Your task to perform on an android device: remove spam from my inbox in the gmail app Image 0: 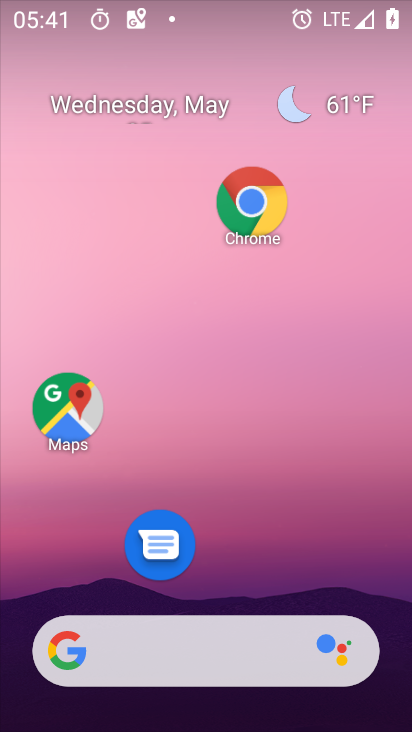
Step 0: click (253, 358)
Your task to perform on an android device: remove spam from my inbox in the gmail app Image 1: 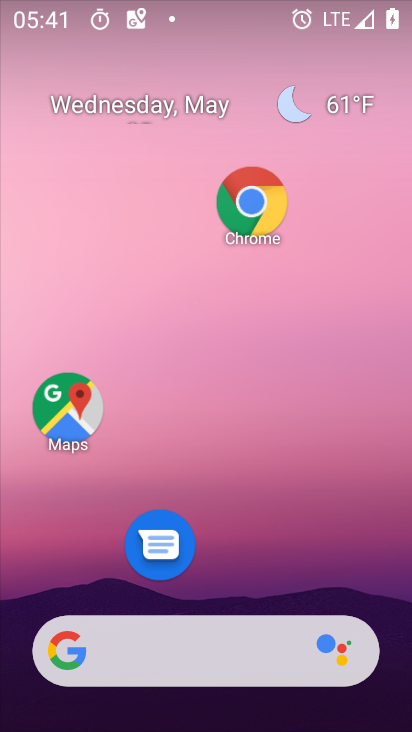
Step 1: drag from (193, 630) to (193, 270)
Your task to perform on an android device: remove spam from my inbox in the gmail app Image 2: 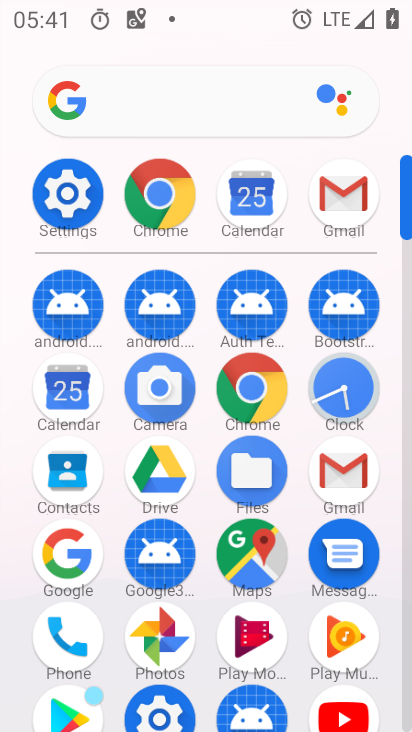
Step 2: click (336, 199)
Your task to perform on an android device: remove spam from my inbox in the gmail app Image 3: 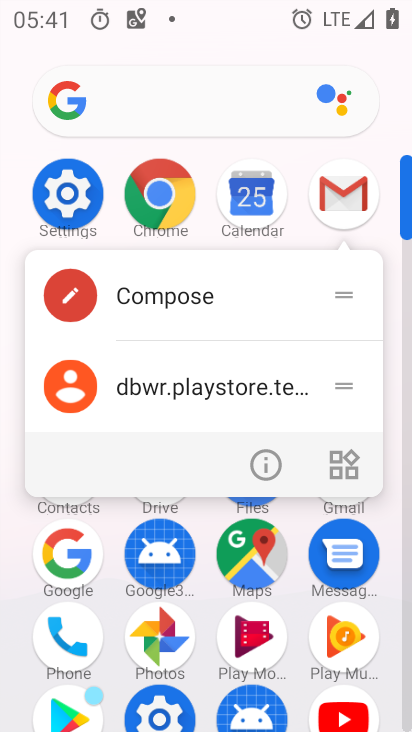
Step 3: click (342, 197)
Your task to perform on an android device: remove spam from my inbox in the gmail app Image 4: 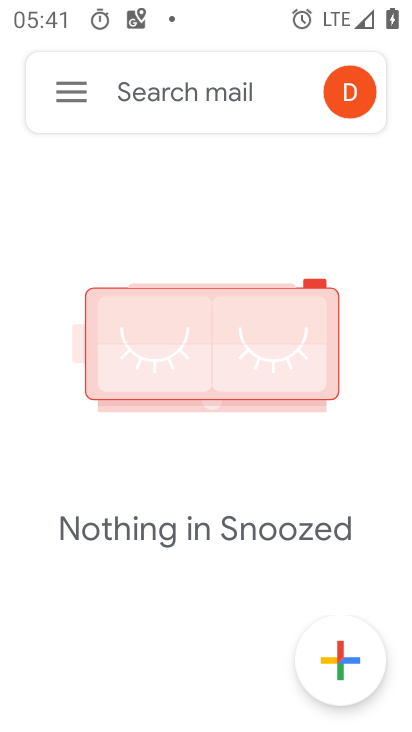
Step 4: click (80, 90)
Your task to perform on an android device: remove spam from my inbox in the gmail app Image 5: 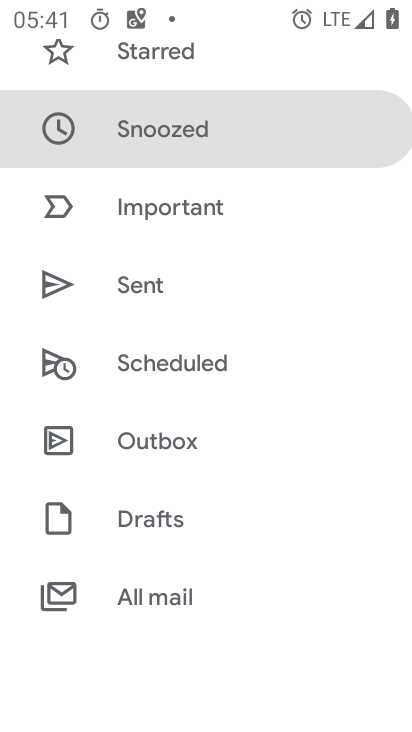
Step 5: drag from (216, 207) to (224, 549)
Your task to perform on an android device: remove spam from my inbox in the gmail app Image 6: 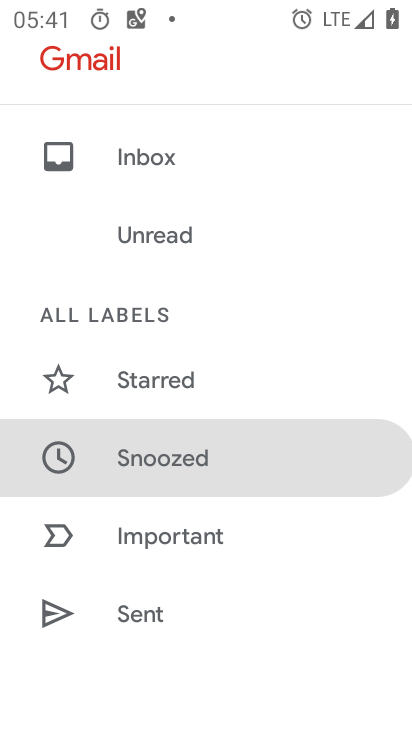
Step 6: drag from (166, 600) to (213, 272)
Your task to perform on an android device: remove spam from my inbox in the gmail app Image 7: 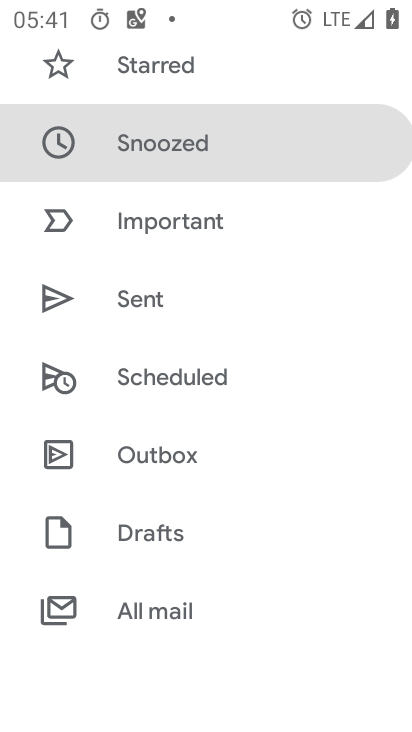
Step 7: drag from (196, 631) to (219, 358)
Your task to perform on an android device: remove spam from my inbox in the gmail app Image 8: 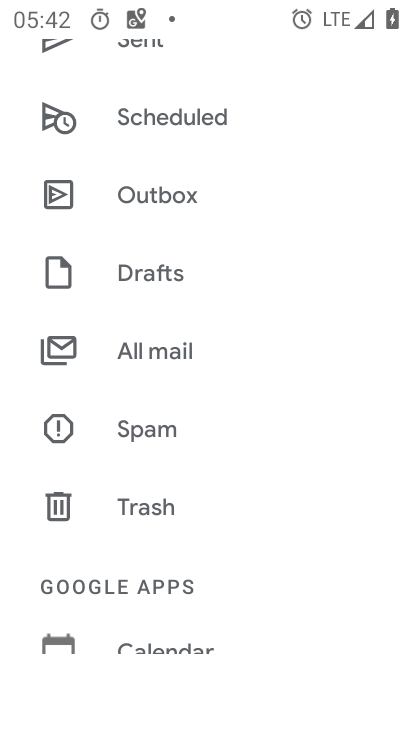
Step 8: click (159, 429)
Your task to perform on an android device: remove spam from my inbox in the gmail app Image 9: 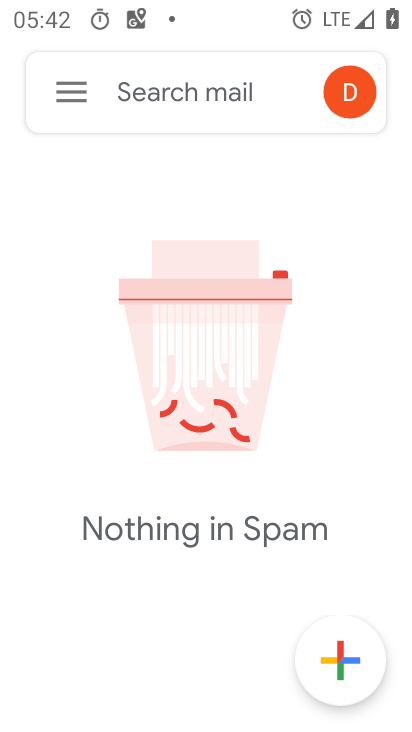
Step 9: task complete